Your task to perform on an android device: delete the emails in spam in the gmail app Image 0: 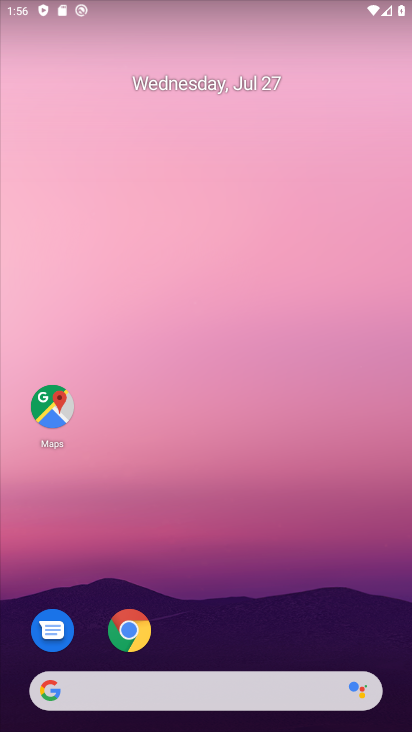
Step 0: drag from (252, 591) to (189, 81)
Your task to perform on an android device: delete the emails in spam in the gmail app Image 1: 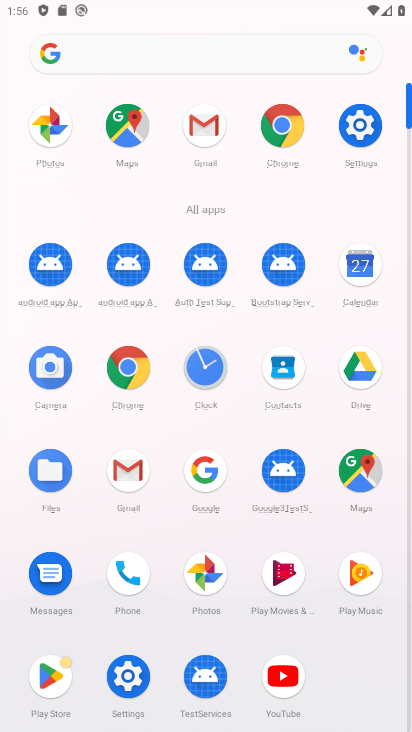
Step 1: click (198, 116)
Your task to perform on an android device: delete the emails in spam in the gmail app Image 2: 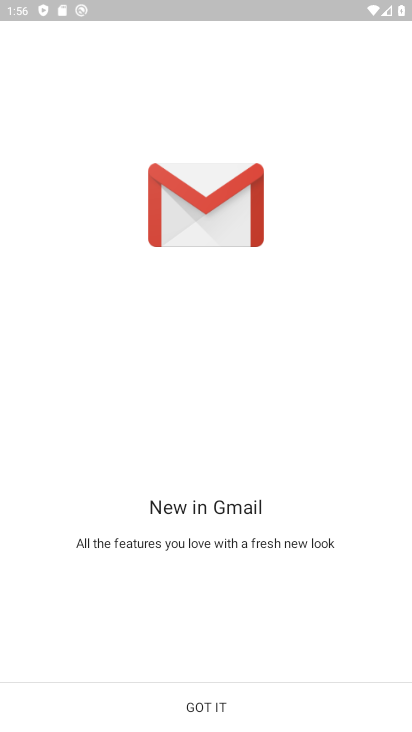
Step 2: click (266, 706)
Your task to perform on an android device: delete the emails in spam in the gmail app Image 3: 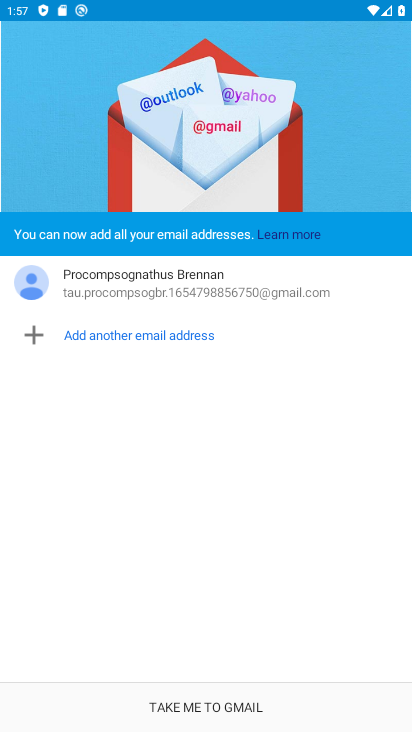
Step 3: click (266, 706)
Your task to perform on an android device: delete the emails in spam in the gmail app Image 4: 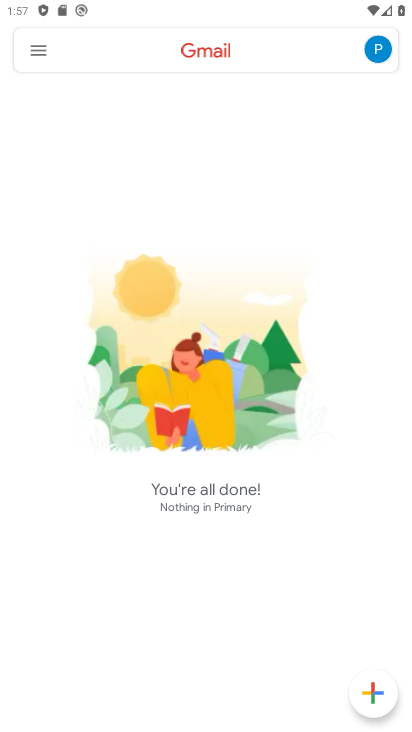
Step 4: click (37, 48)
Your task to perform on an android device: delete the emails in spam in the gmail app Image 5: 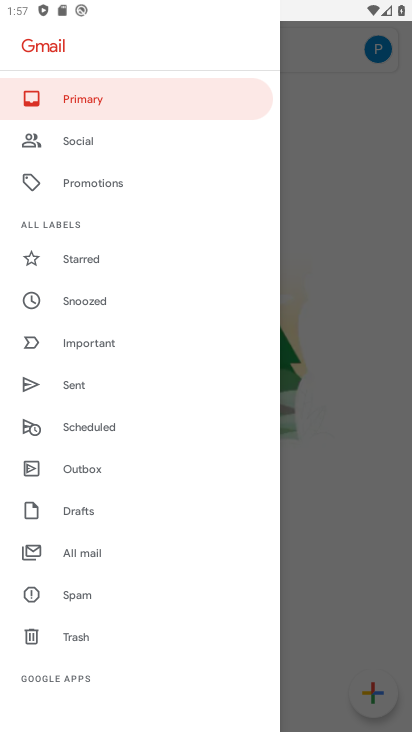
Step 5: click (99, 600)
Your task to perform on an android device: delete the emails in spam in the gmail app Image 6: 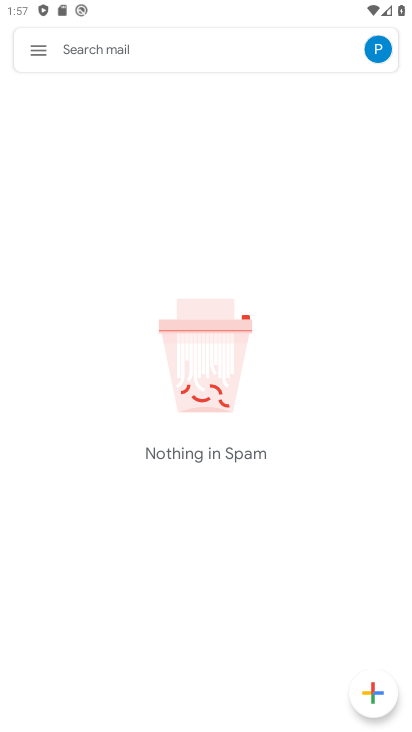
Step 6: task complete